Your task to perform on an android device: toggle location history Image 0: 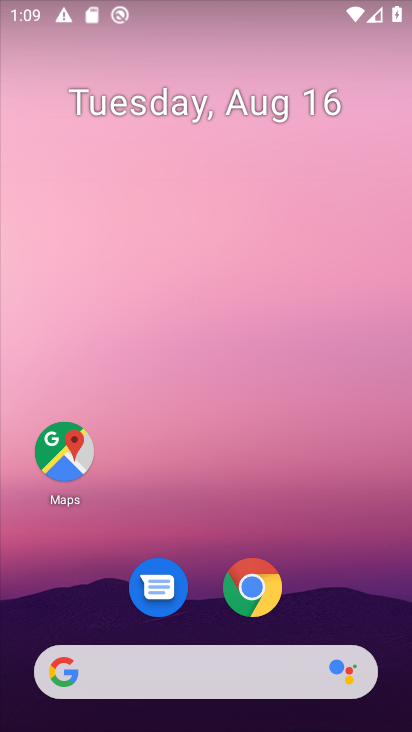
Step 0: drag from (179, 646) to (165, 222)
Your task to perform on an android device: toggle location history Image 1: 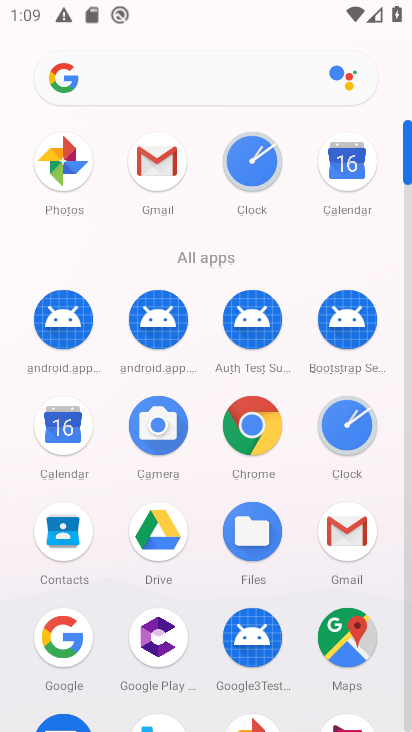
Step 1: drag from (215, 677) to (242, 262)
Your task to perform on an android device: toggle location history Image 2: 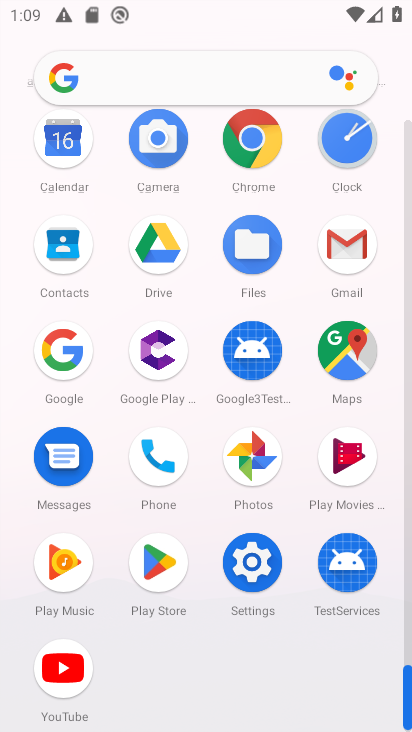
Step 2: click (260, 561)
Your task to perform on an android device: toggle location history Image 3: 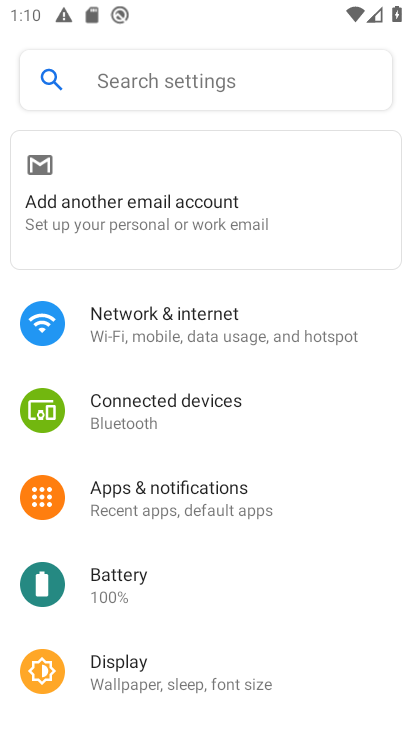
Step 3: drag from (207, 640) to (277, 370)
Your task to perform on an android device: toggle location history Image 4: 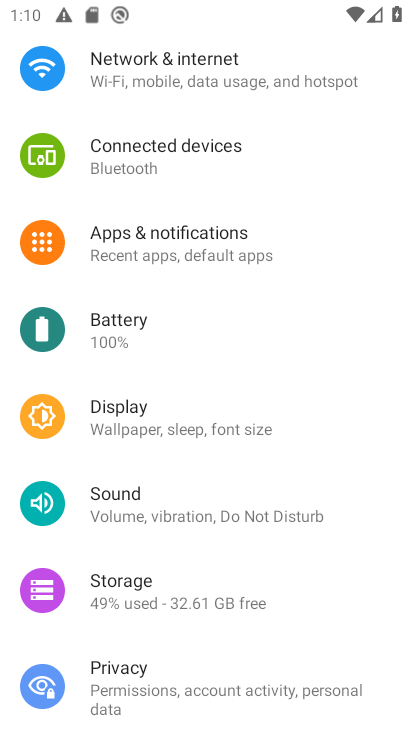
Step 4: drag from (105, 711) to (180, 430)
Your task to perform on an android device: toggle location history Image 5: 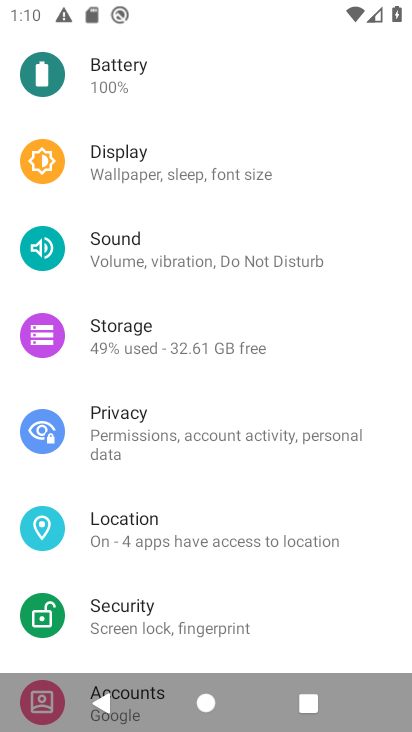
Step 5: click (164, 546)
Your task to perform on an android device: toggle location history Image 6: 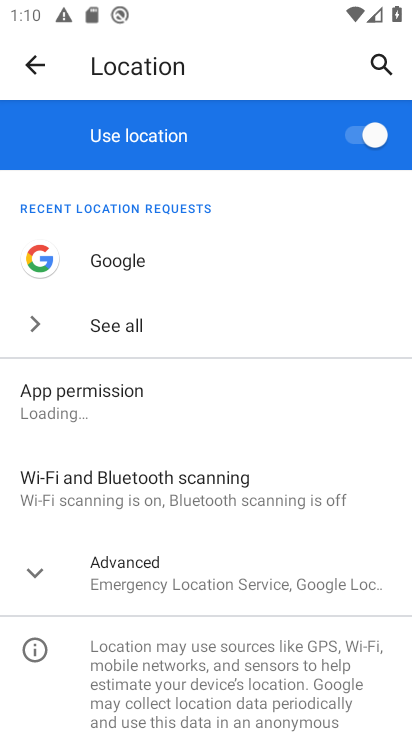
Step 6: drag from (86, 622) to (122, 277)
Your task to perform on an android device: toggle location history Image 7: 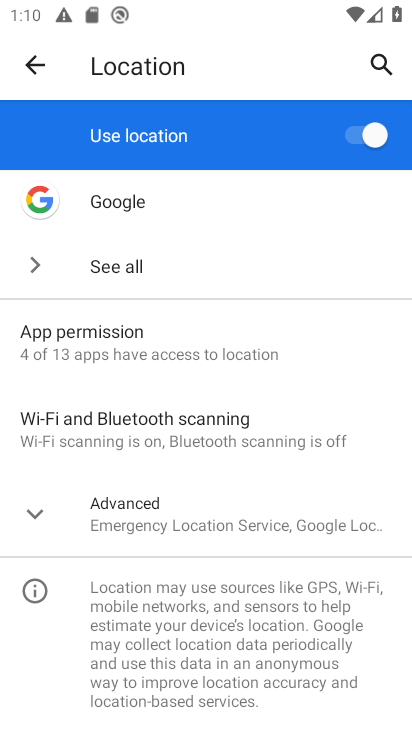
Step 7: click (115, 517)
Your task to perform on an android device: toggle location history Image 8: 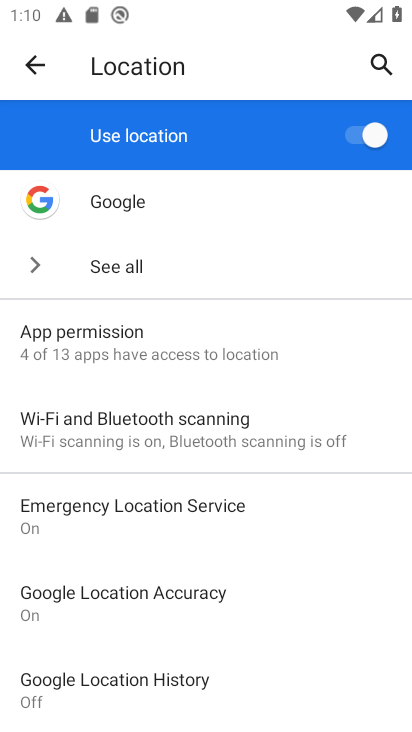
Step 8: click (104, 688)
Your task to perform on an android device: toggle location history Image 9: 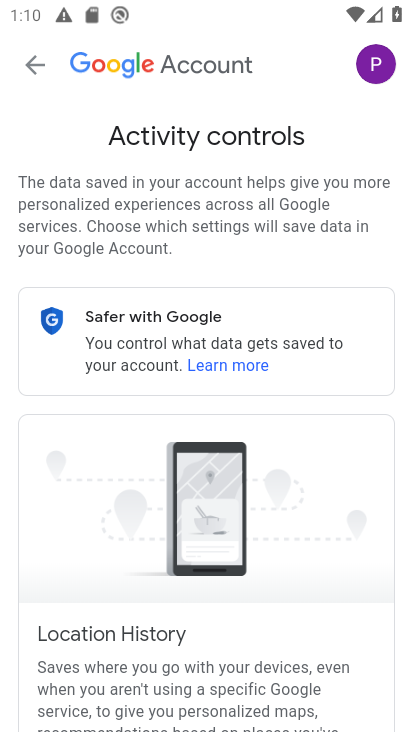
Step 9: drag from (248, 683) to (315, 353)
Your task to perform on an android device: toggle location history Image 10: 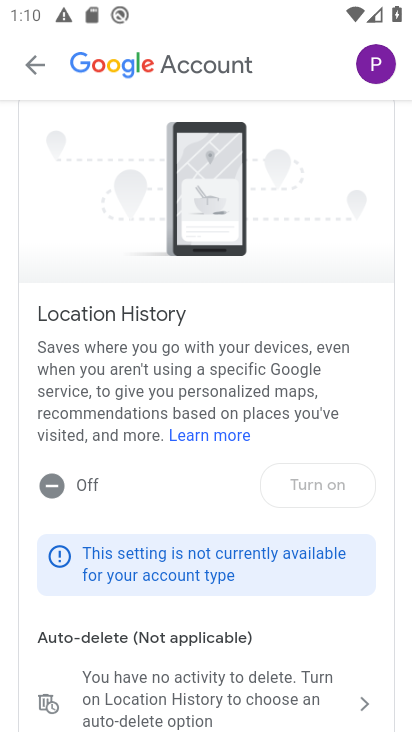
Step 10: click (313, 489)
Your task to perform on an android device: toggle location history Image 11: 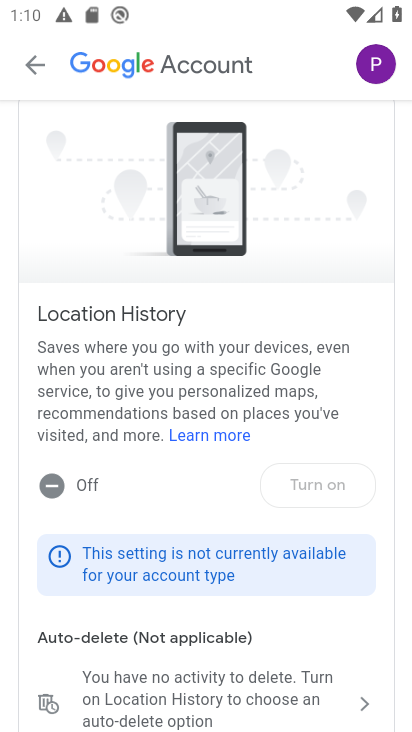
Step 11: task complete